Your task to perform on an android device: toggle priority inbox in the gmail app Image 0: 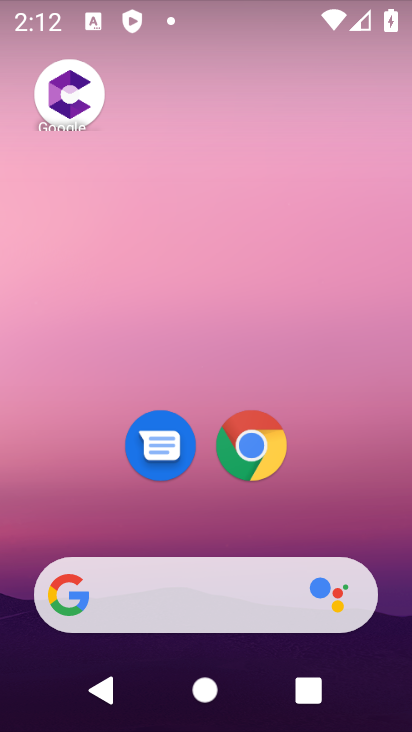
Step 0: drag from (199, 528) to (175, 102)
Your task to perform on an android device: toggle priority inbox in the gmail app Image 1: 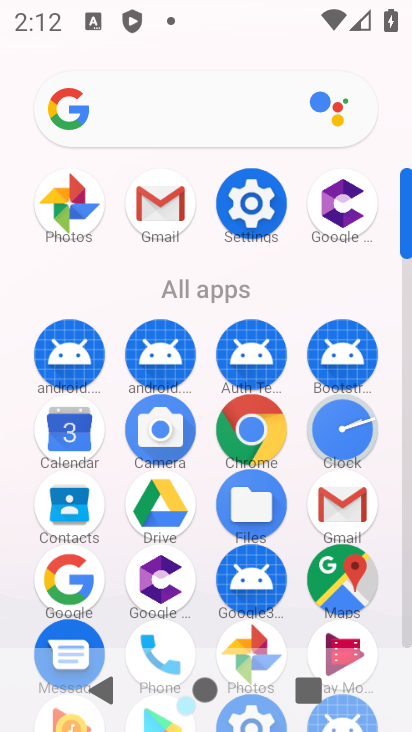
Step 1: click (138, 217)
Your task to perform on an android device: toggle priority inbox in the gmail app Image 2: 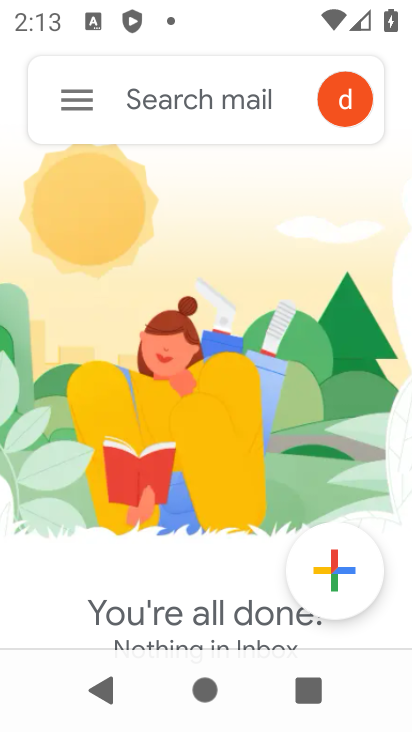
Step 2: click (63, 109)
Your task to perform on an android device: toggle priority inbox in the gmail app Image 3: 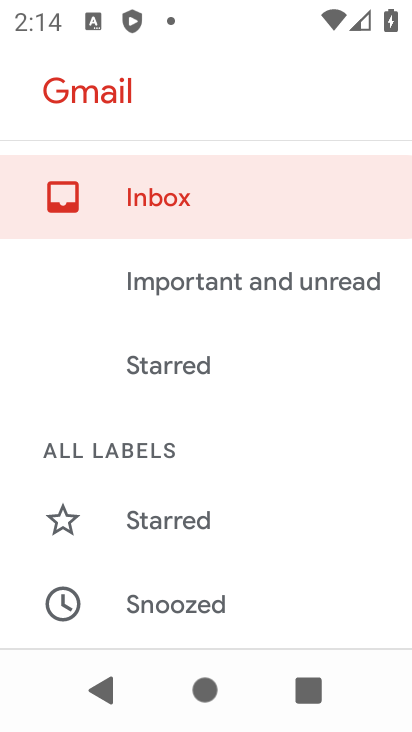
Step 3: drag from (276, 517) to (283, 218)
Your task to perform on an android device: toggle priority inbox in the gmail app Image 4: 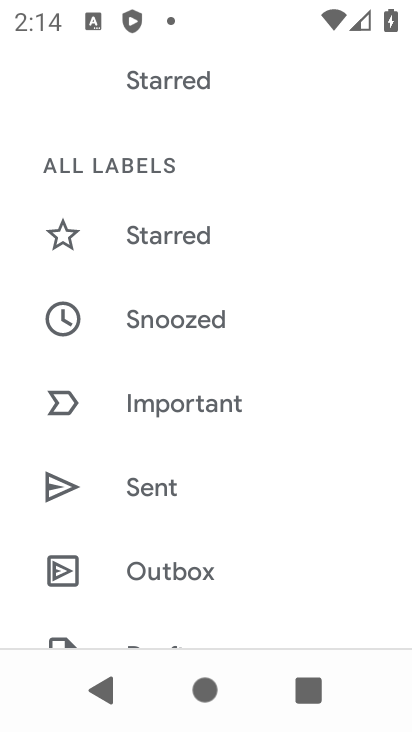
Step 4: drag from (257, 515) to (212, 307)
Your task to perform on an android device: toggle priority inbox in the gmail app Image 5: 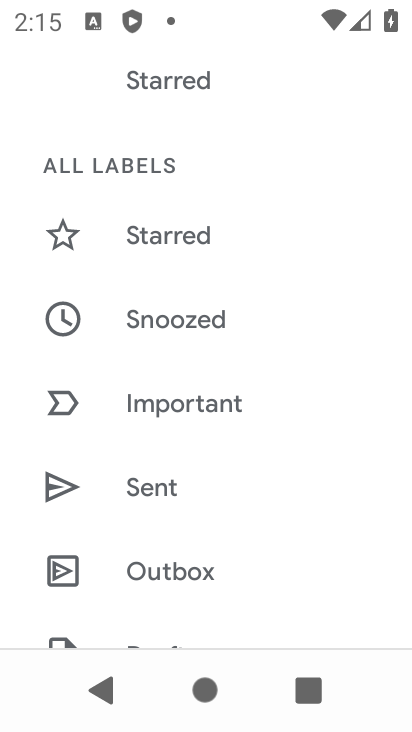
Step 5: drag from (203, 609) to (212, 271)
Your task to perform on an android device: toggle priority inbox in the gmail app Image 6: 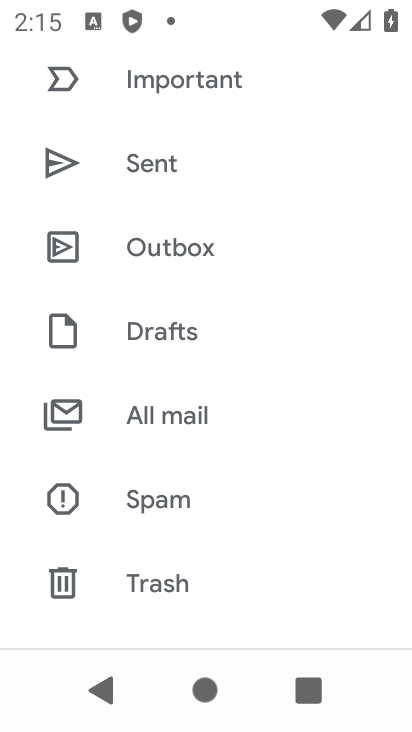
Step 6: drag from (237, 622) to (255, 95)
Your task to perform on an android device: toggle priority inbox in the gmail app Image 7: 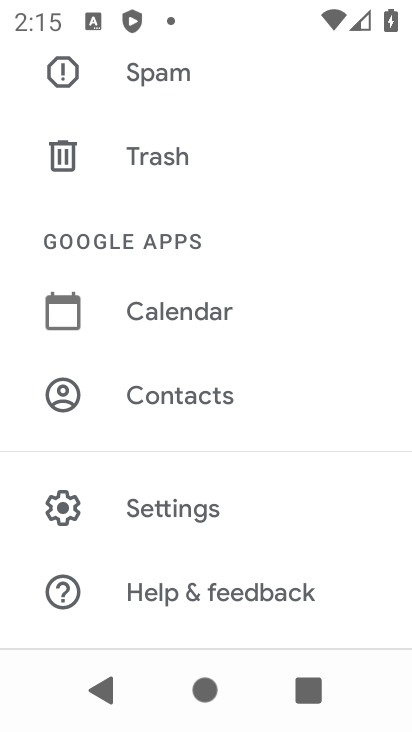
Step 7: click (189, 531)
Your task to perform on an android device: toggle priority inbox in the gmail app Image 8: 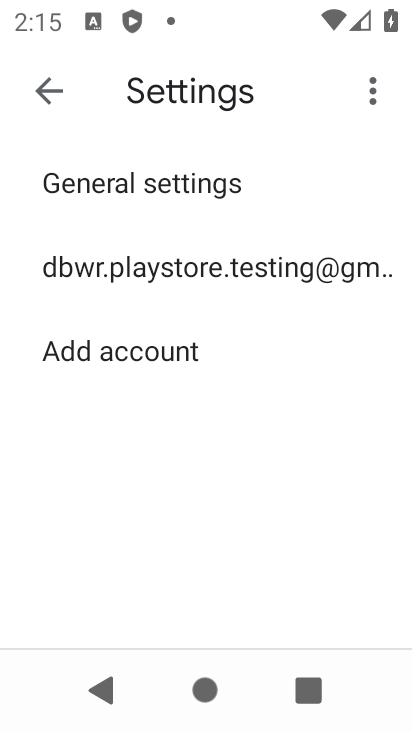
Step 8: task complete